Your task to perform on an android device: Set the phone to "Do not disturb". Image 0: 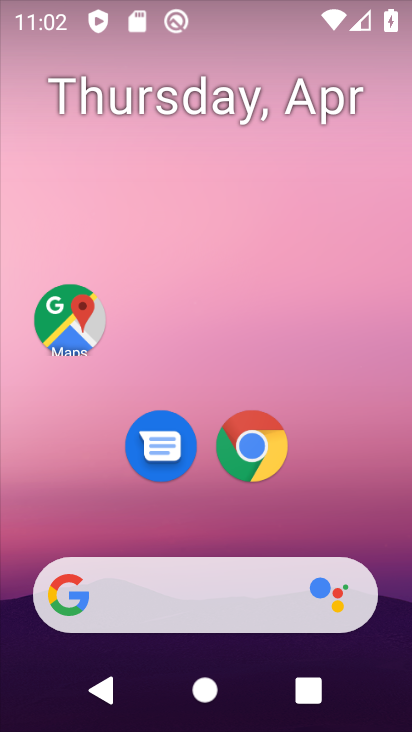
Step 0: drag from (193, 496) to (173, 91)
Your task to perform on an android device: Set the phone to "Do not disturb". Image 1: 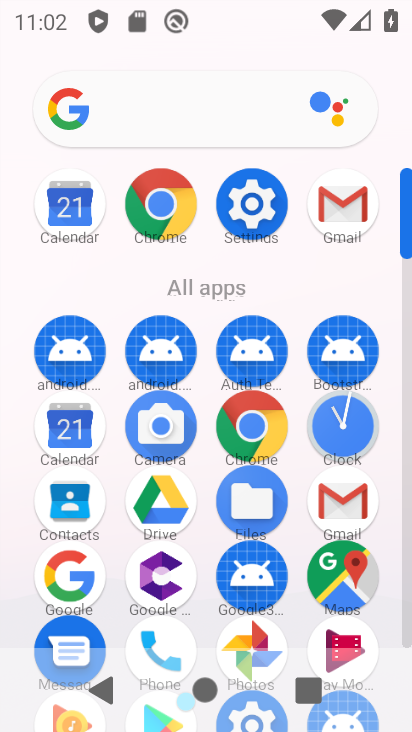
Step 1: click (254, 217)
Your task to perform on an android device: Set the phone to "Do not disturb". Image 2: 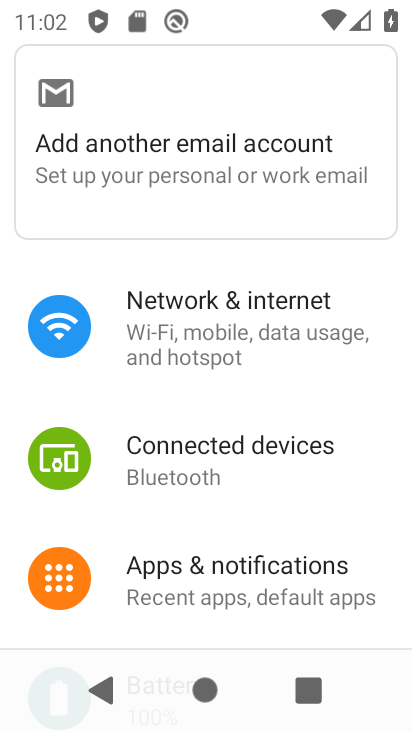
Step 2: drag from (234, 564) to (313, 153)
Your task to perform on an android device: Set the phone to "Do not disturb". Image 3: 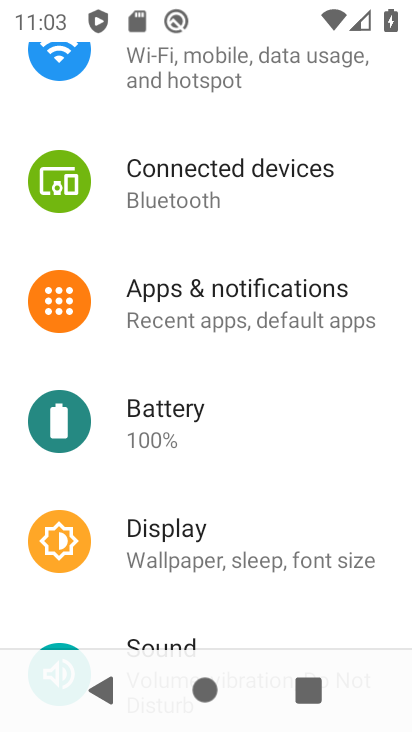
Step 3: click (211, 315)
Your task to perform on an android device: Set the phone to "Do not disturb". Image 4: 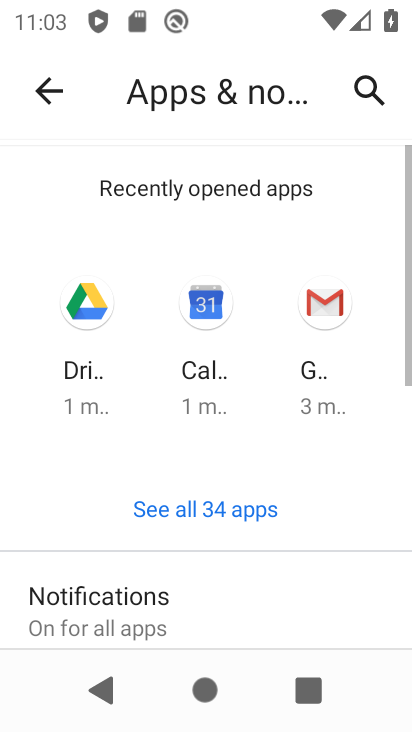
Step 4: click (176, 573)
Your task to perform on an android device: Set the phone to "Do not disturb". Image 5: 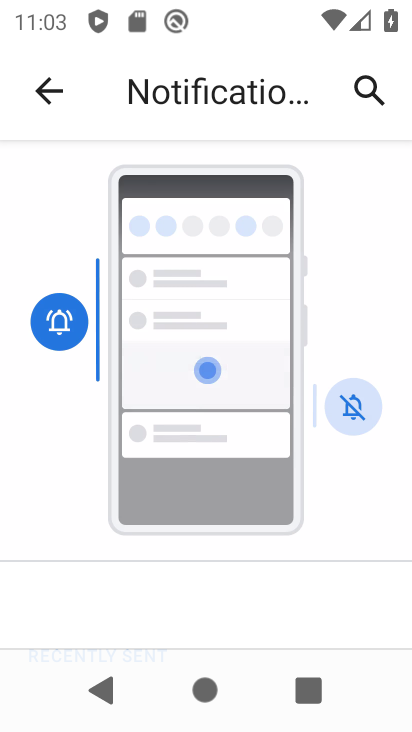
Step 5: drag from (220, 497) to (277, 214)
Your task to perform on an android device: Set the phone to "Do not disturb". Image 6: 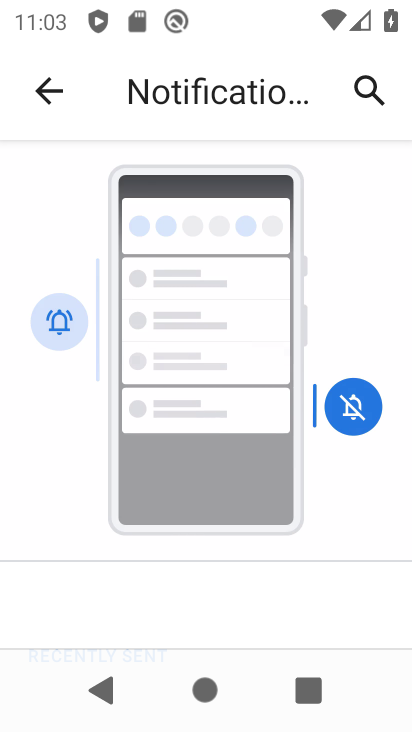
Step 6: drag from (210, 578) to (304, 227)
Your task to perform on an android device: Set the phone to "Do not disturb". Image 7: 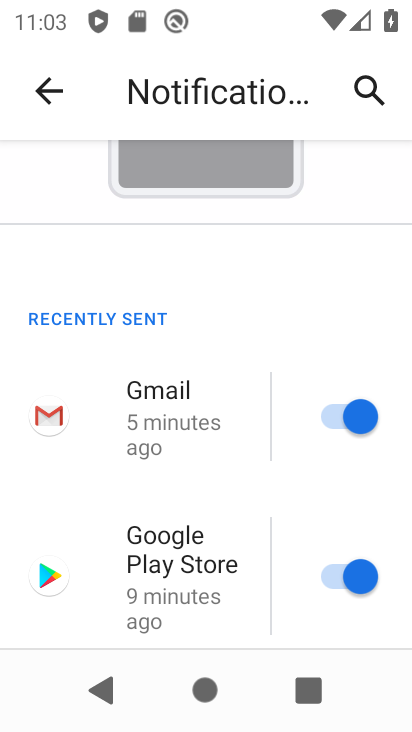
Step 7: drag from (212, 531) to (240, 115)
Your task to perform on an android device: Set the phone to "Do not disturb". Image 8: 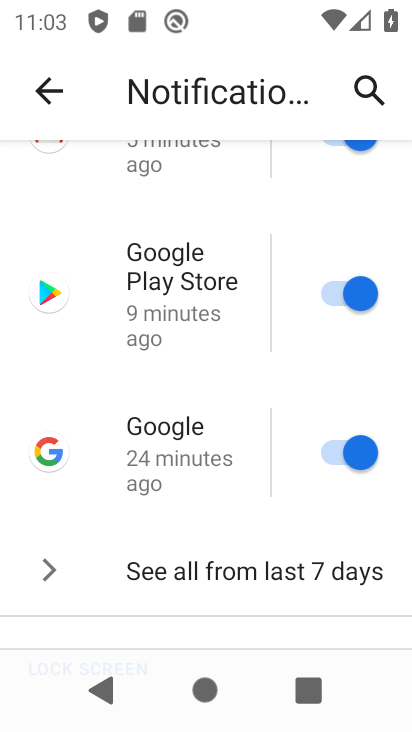
Step 8: drag from (254, 561) to (254, 291)
Your task to perform on an android device: Set the phone to "Do not disturb". Image 9: 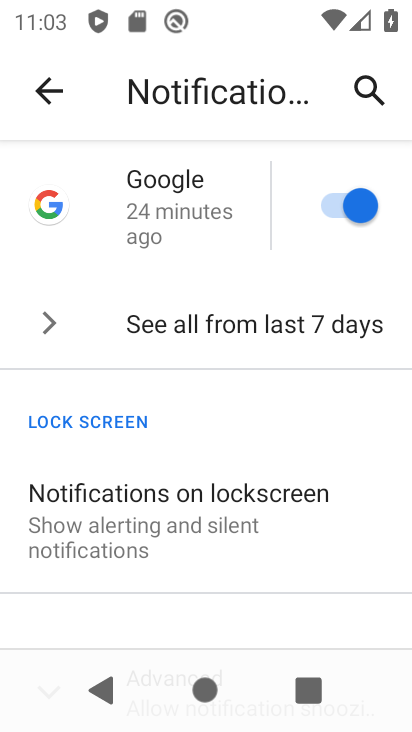
Step 9: drag from (213, 530) to (267, 172)
Your task to perform on an android device: Set the phone to "Do not disturb". Image 10: 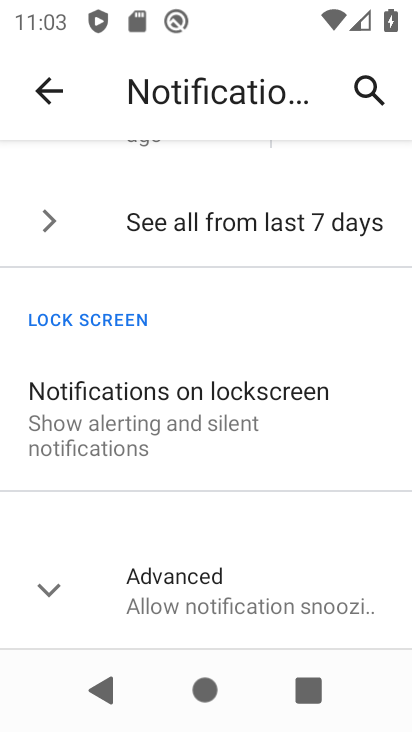
Step 10: click (171, 579)
Your task to perform on an android device: Set the phone to "Do not disturb". Image 11: 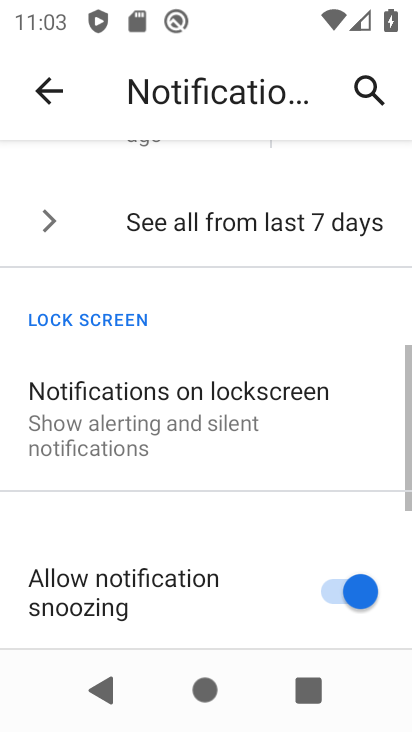
Step 11: drag from (222, 598) to (292, 114)
Your task to perform on an android device: Set the phone to "Do not disturb". Image 12: 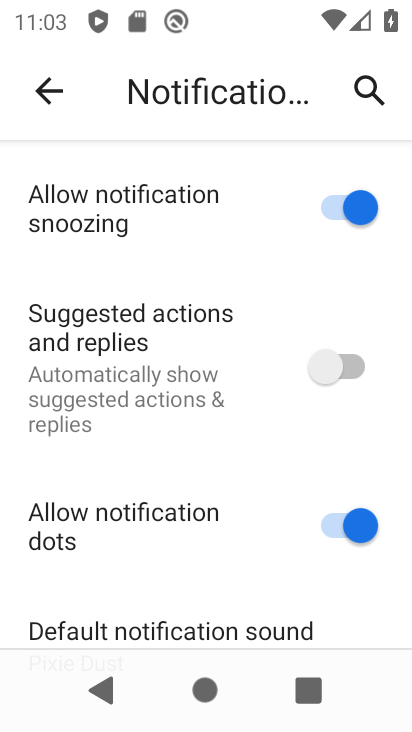
Step 12: drag from (215, 620) to (287, 130)
Your task to perform on an android device: Set the phone to "Do not disturb". Image 13: 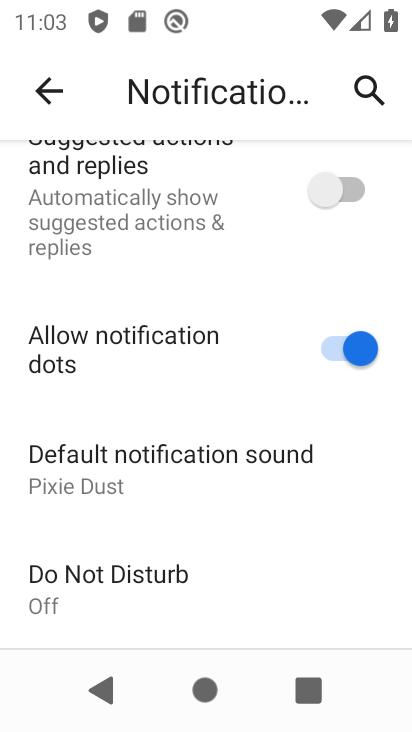
Step 13: click (143, 595)
Your task to perform on an android device: Set the phone to "Do not disturb". Image 14: 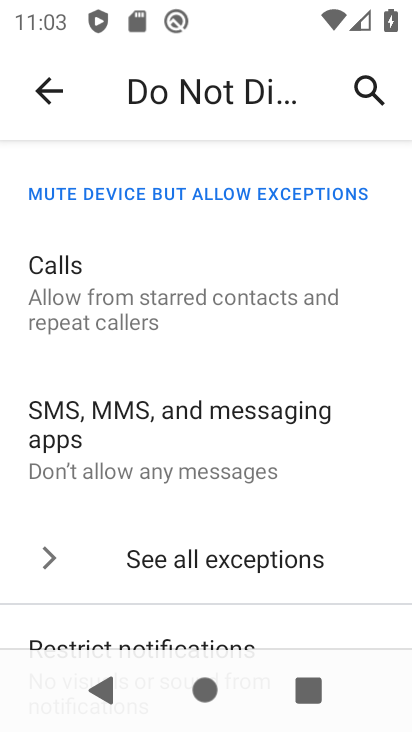
Step 14: drag from (193, 556) to (293, 108)
Your task to perform on an android device: Set the phone to "Do not disturb". Image 15: 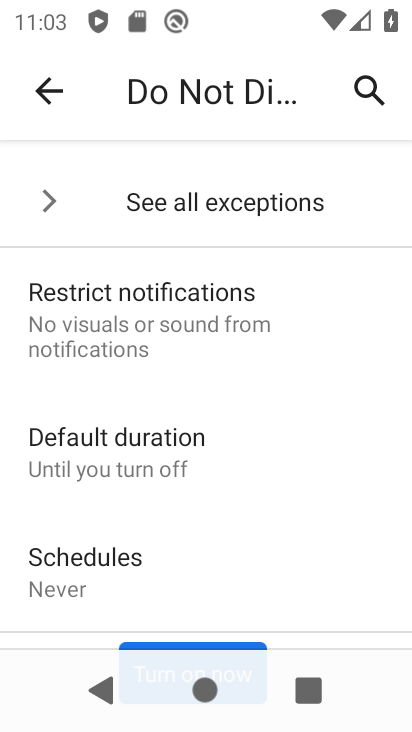
Step 15: drag from (186, 591) to (274, 164)
Your task to perform on an android device: Set the phone to "Do not disturb". Image 16: 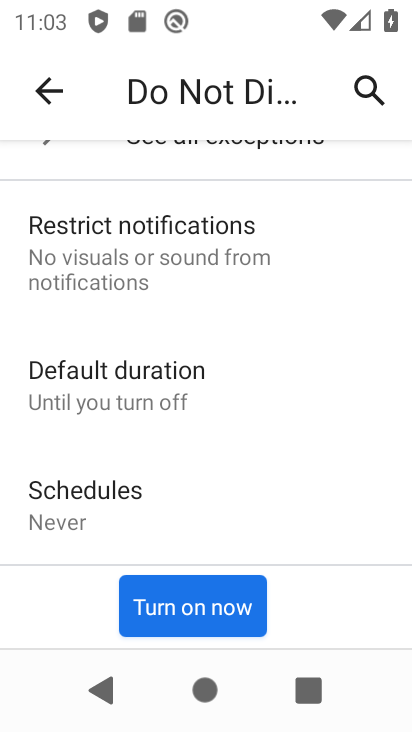
Step 16: click (198, 616)
Your task to perform on an android device: Set the phone to "Do not disturb". Image 17: 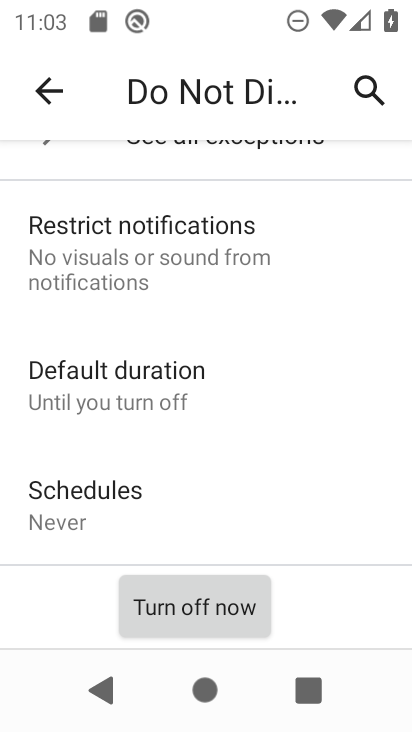
Step 17: task complete